Your task to perform on an android device: open a new tab in the chrome app Image 0: 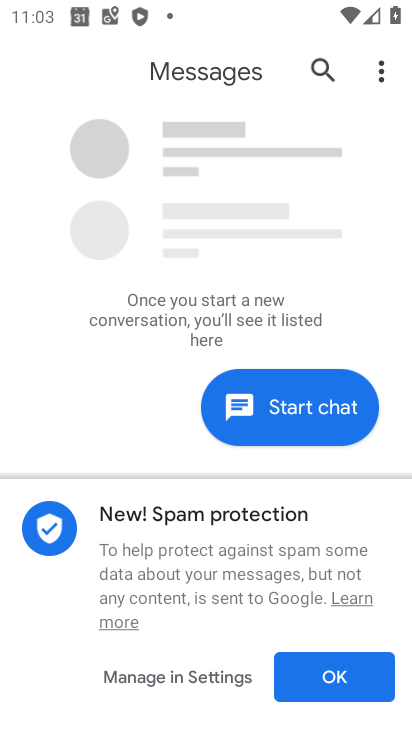
Step 0: drag from (236, 646) to (335, 268)
Your task to perform on an android device: open a new tab in the chrome app Image 1: 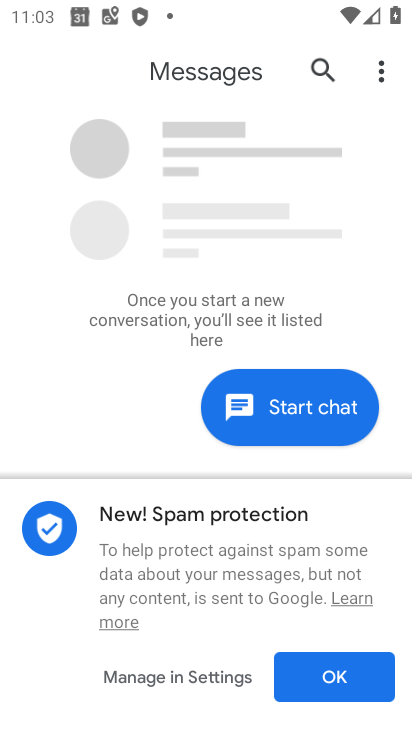
Step 1: press home button
Your task to perform on an android device: open a new tab in the chrome app Image 2: 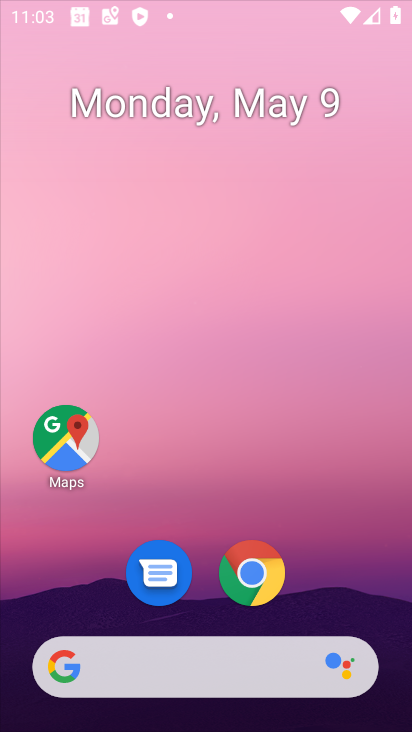
Step 2: drag from (252, 690) to (339, 309)
Your task to perform on an android device: open a new tab in the chrome app Image 3: 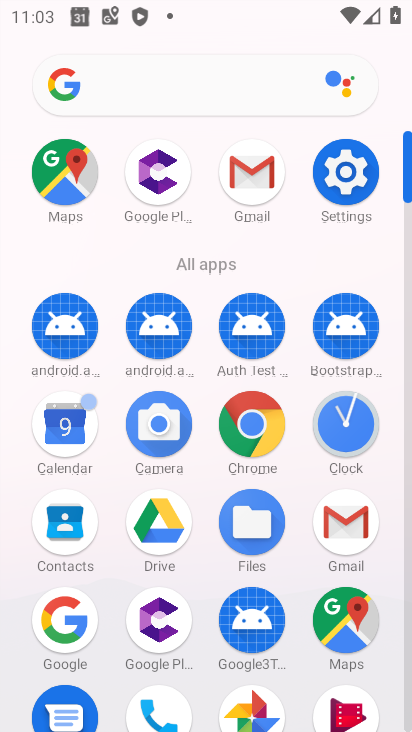
Step 3: click (259, 405)
Your task to perform on an android device: open a new tab in the chrome app Image 4: 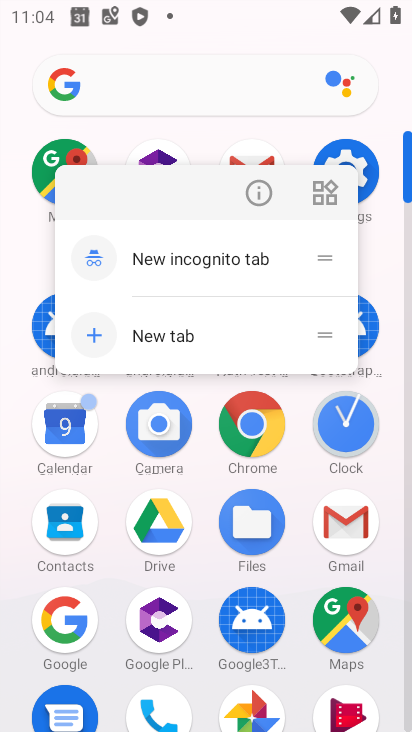
Step 4: click (258, 191)
Your task to perform on an android device: open a new tab in the chrome app Image 5: 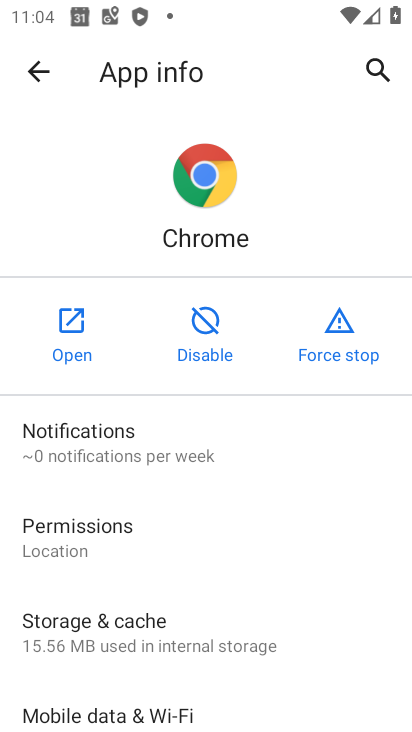
Step 5: click (53, 344)
Your task to perform on an android device: open a new tab in the chrome app Image 6: 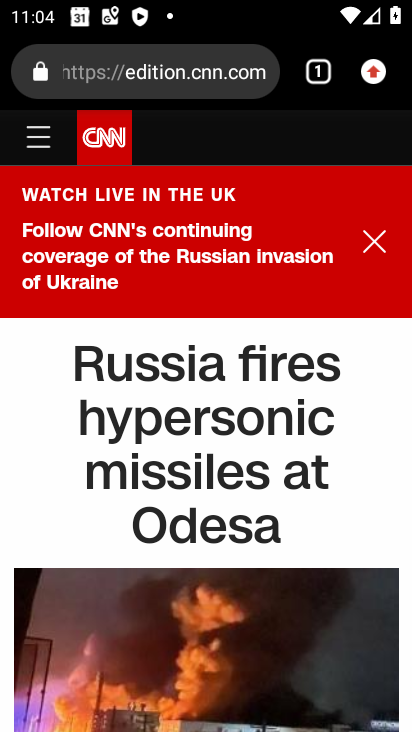
Step 6: click (369, 255)
Your task to perform on an android device: open a new tab in the chrome app Image 7: 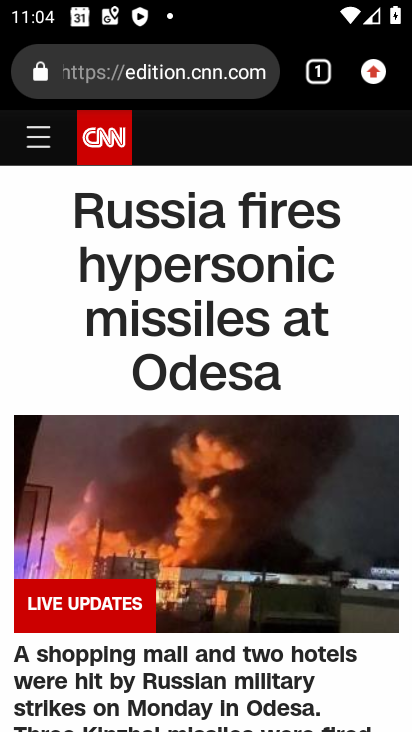
Step 7: drag from (172, 534) to (376, 134)
Your task to perform on an android device: open a new tab in the chrome app Image 8: 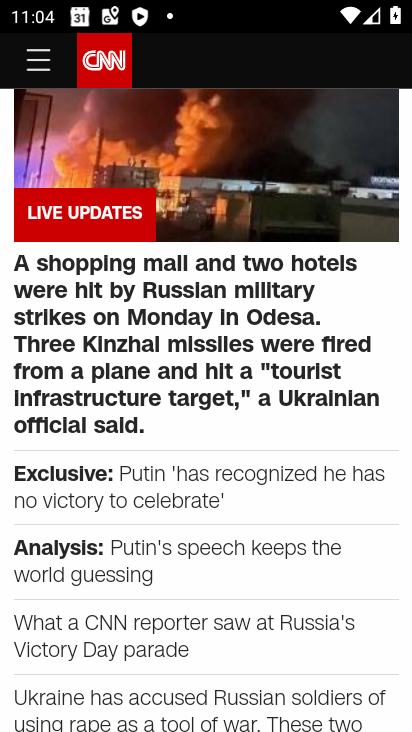
Step 8: drag from (200, 576) to (306, 283)
Your task to perform on an android device: open a new tab in the chrome app Image 9: 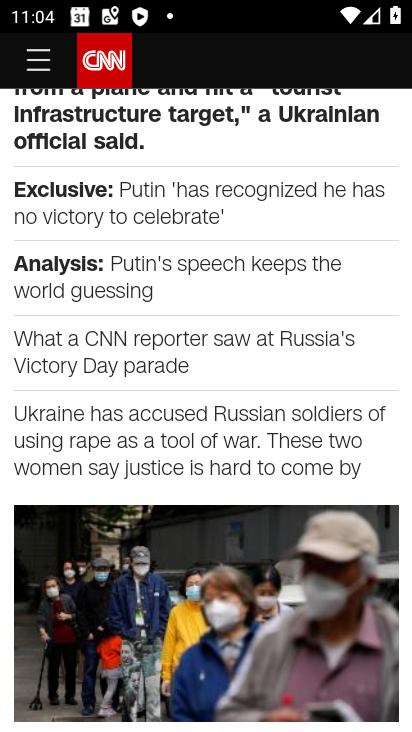
Step 9: drag from (211, 515) to (343, 236)
Your task to perform on an android device: open a new tab in the chrome app Image 10: 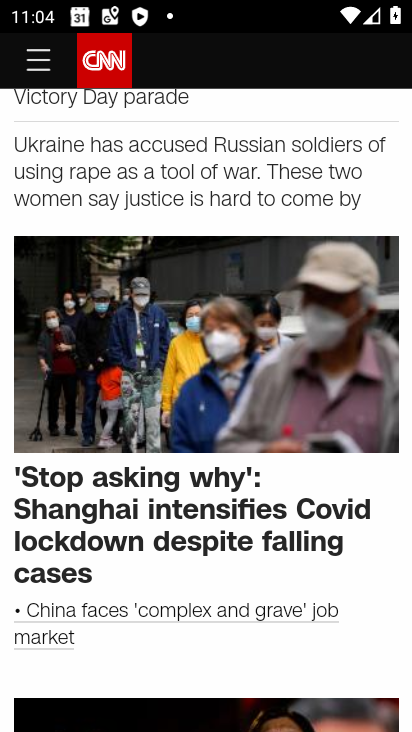
Step 10: drag from (206, 560) to (326, 321)
Your task to perform on an android device: open a new tab in the chrome app Image 11: 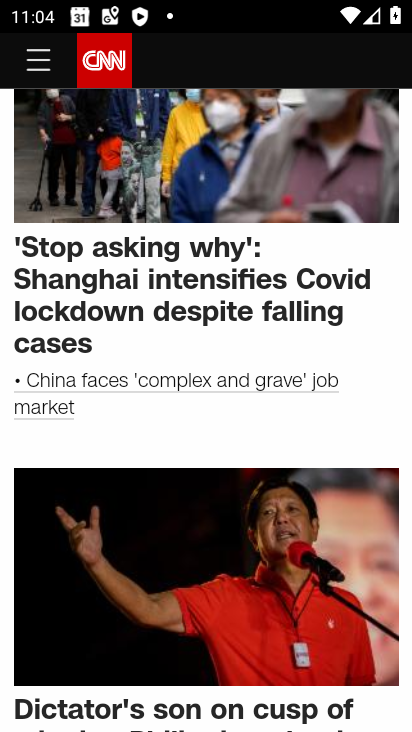
Step 11: drag from (236, 495) to (329, 206)
Your task to perform on an android device: open a new tab in the chrome app Image 12: 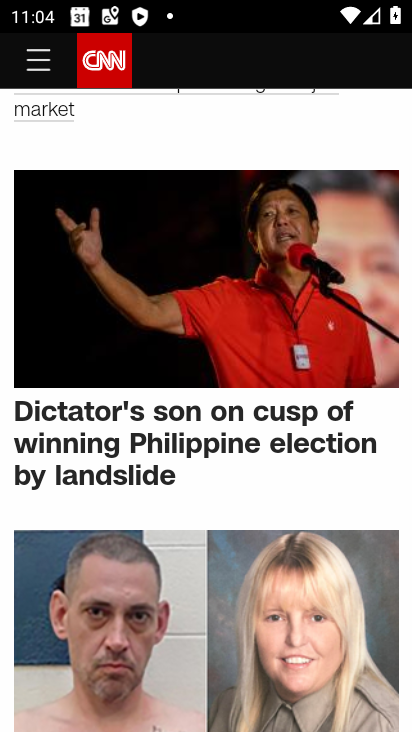
Step 12: drag from (294, 236) to (128, 698)
Your task to perform on an android device: open a new tab in the chrome app Image 13: 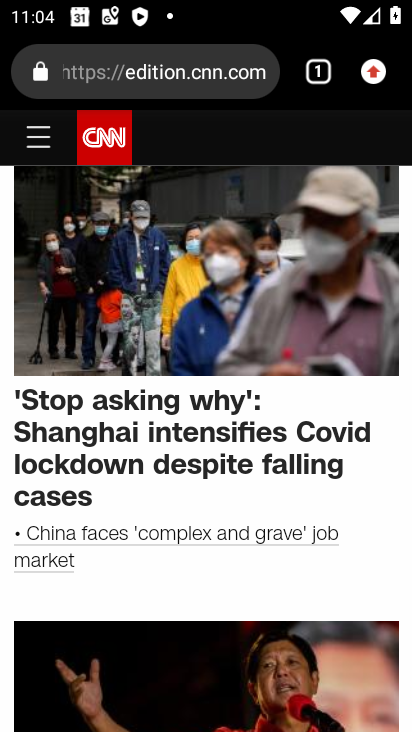
Step 13: click (317, 79)
Your task to perform on an android device: open a new tab in the chrome app Image 14: 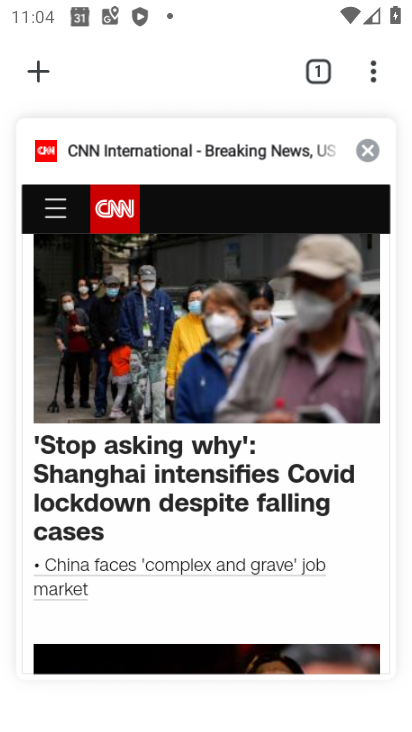
Step 14: click (33, 67)
Your task to perform on an android device: open a new tab in the chrome app Image 15: 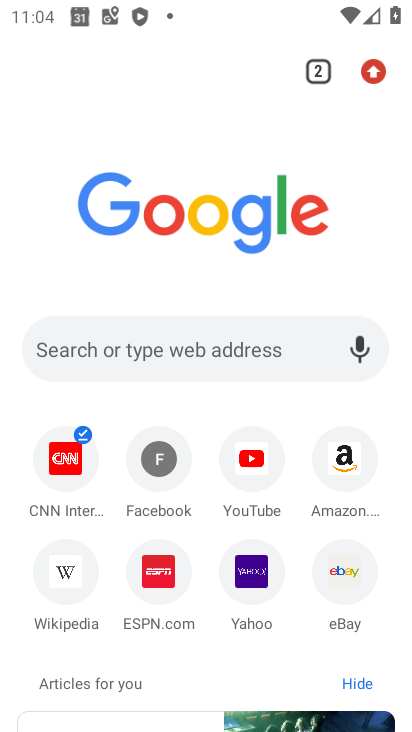
Step 15: task complete